Your task to perform on an android device: delete browsing data in the chrome app Image 0: 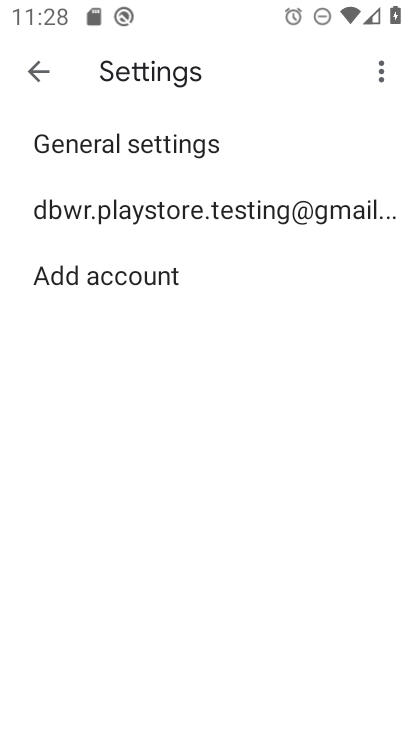
Step 0: drag from (382, 632) to (165, 12)
Your task to perform on an android device: delete browsing data in the chrome app Image 1: 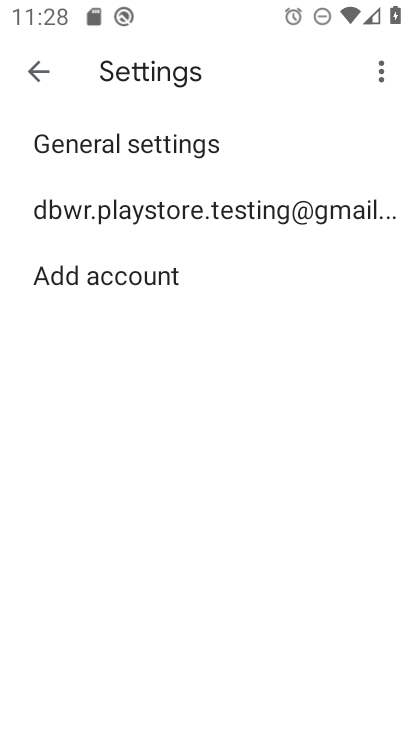
Step 1: click (32, 62)
Your task to perform on an android device: delete browsing data in the chrome app Image 2: 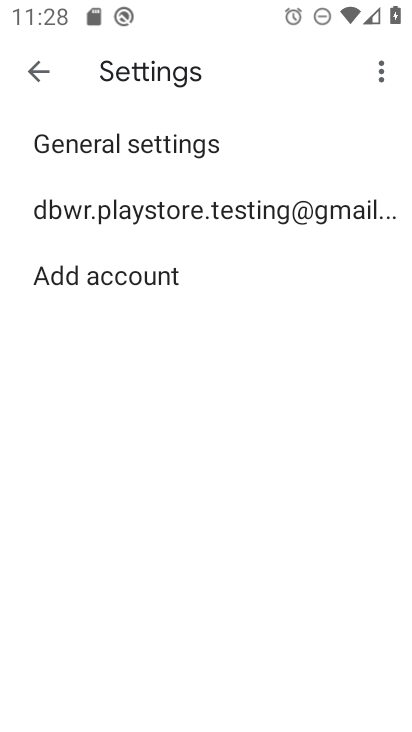
Step 2: click (30, 76)
Your task to perform on an android device: delete browsing data in the chrome app Image 3: 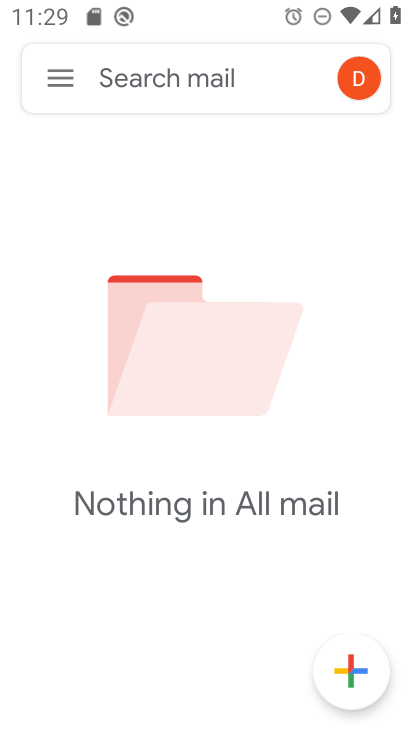
Step 3: press back button
Your task to perform on an android device: delete browsing data in the chrome app Image 4: 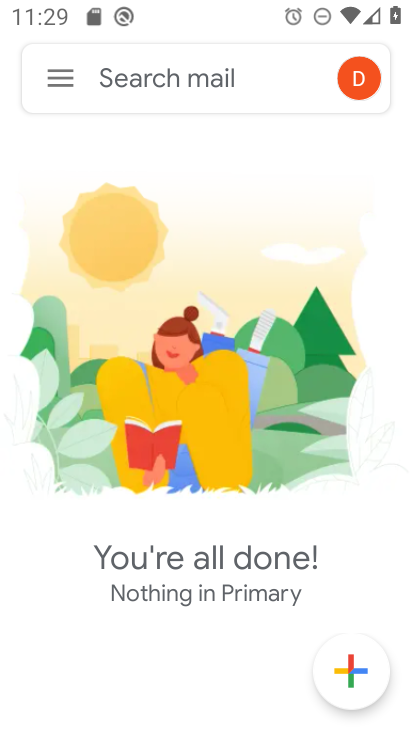
Step 4: press home button
Your task to perform on an android device: delete browsing data in the chrome app Image 5: 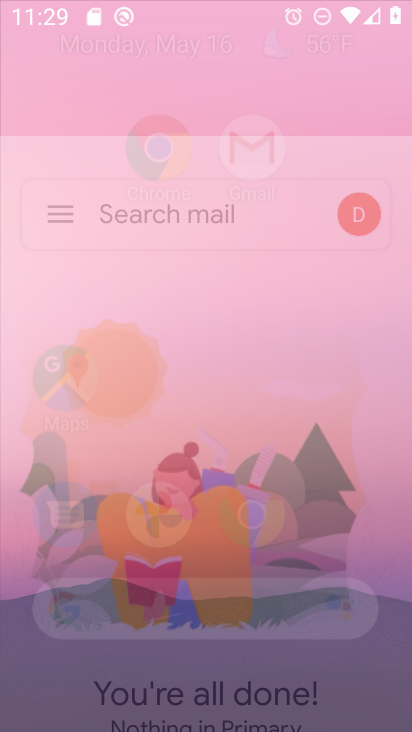
Step 5: press home button
Your task to perform on an android device: delete browsing data in the chrome app Image 6: 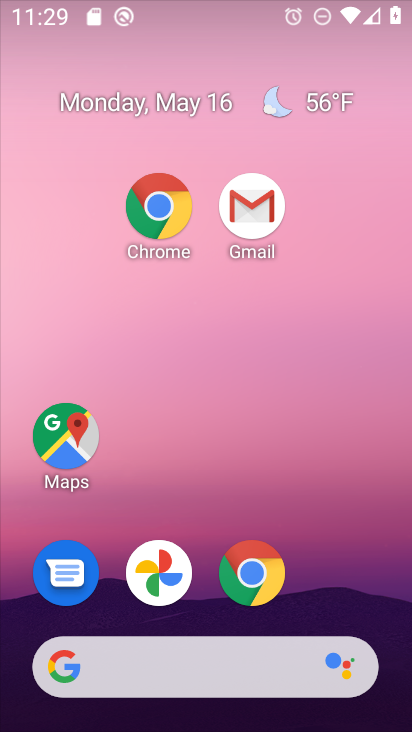
Step 6: drag from (382, 576) to (74, 70)
Your task to perform on an android device: delete browsing data in the chrome app Image 7: 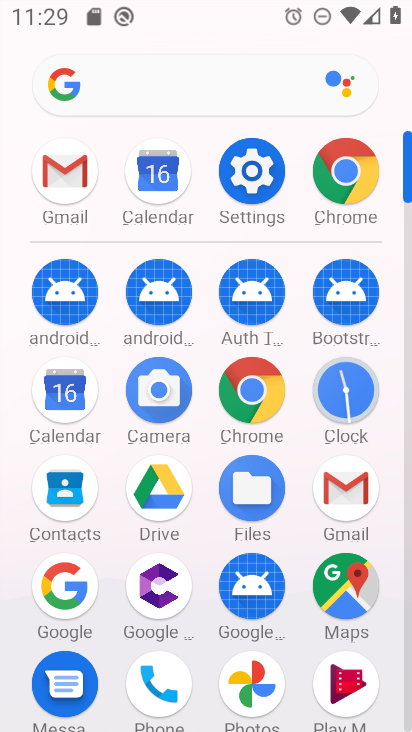
Step 7: click (348, 178)
Your task to perform on an android device: delete browsing data in the chrome app Image 8: 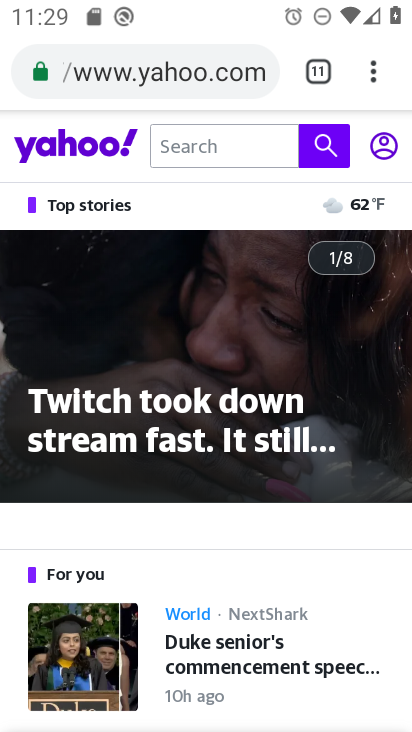
Step 8: drag from (372, 72) to (108, 395)
Your task to perform on an android device: delete browsing data in the chrome app Image 9: 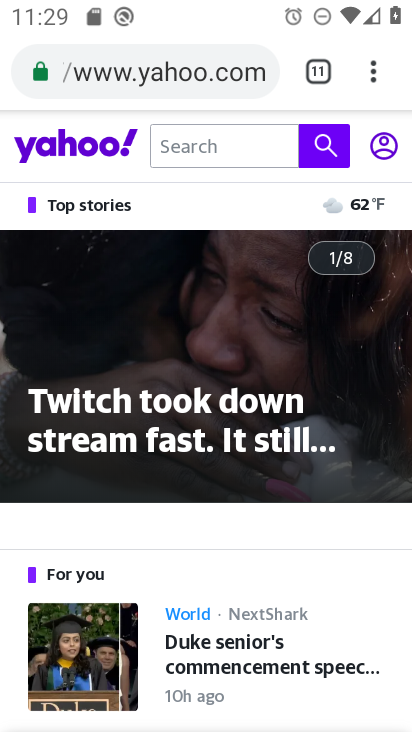
Step 9: click (118, 400)
Your task to perform on an android device: delete browsing data in the chrome app Image 10: 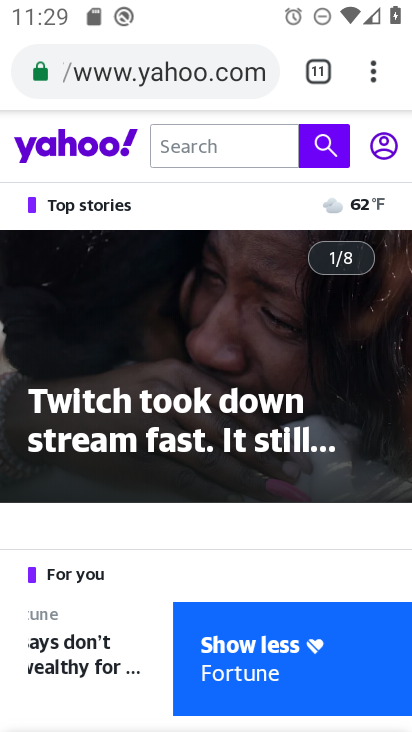
Step 10: drag from (373, 71) to (117, 396)
Your task to perform on an android device: delete browsing data in the chrome app Image 11: 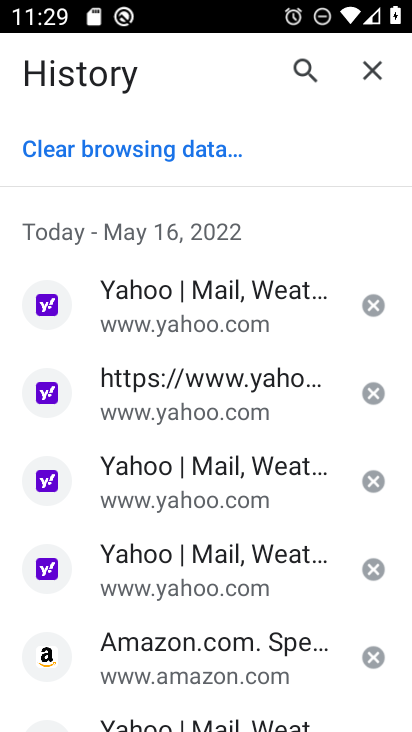
Step 11: click (158, 148)
Your task to perform on an android device: delete browsing data in the chrome app Image 12: 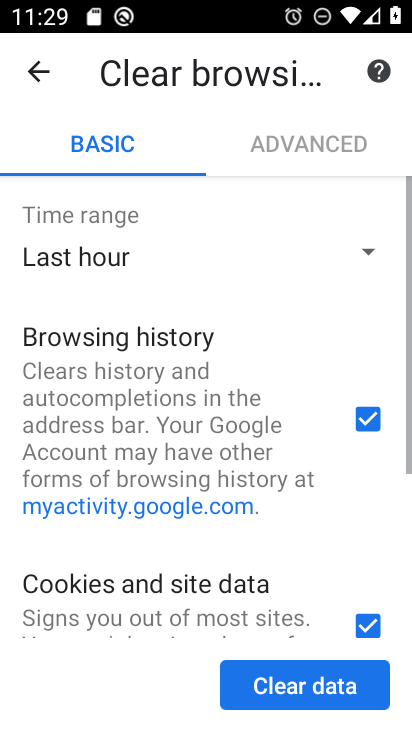
Step 12: click (331, 685)
Your task to perform on an android device: delete browsing data in the chrome app Image 13: 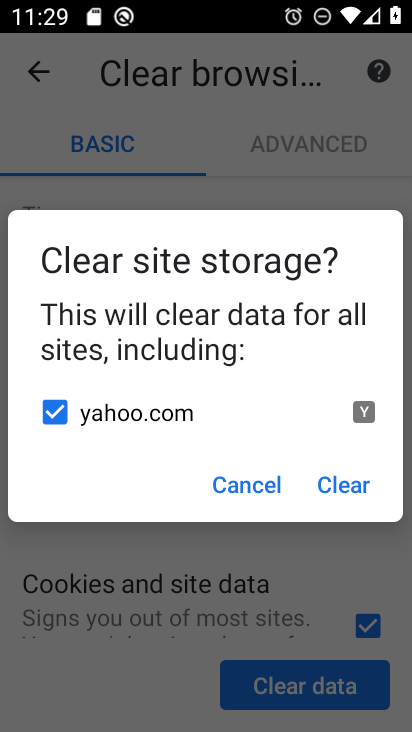
Step 13: click (351, 495)
Your task to perform on an android device: delete browsing data in the chrome app Image 14: 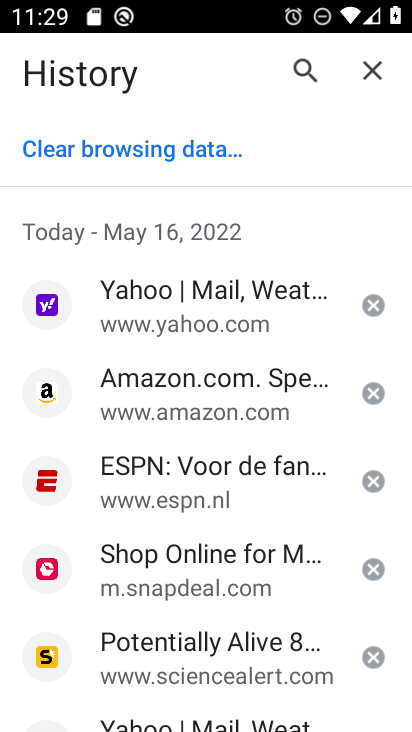
Step 14: task complete